Your task to perform on an android device: Add usb-a to the cart on costco Image 0: 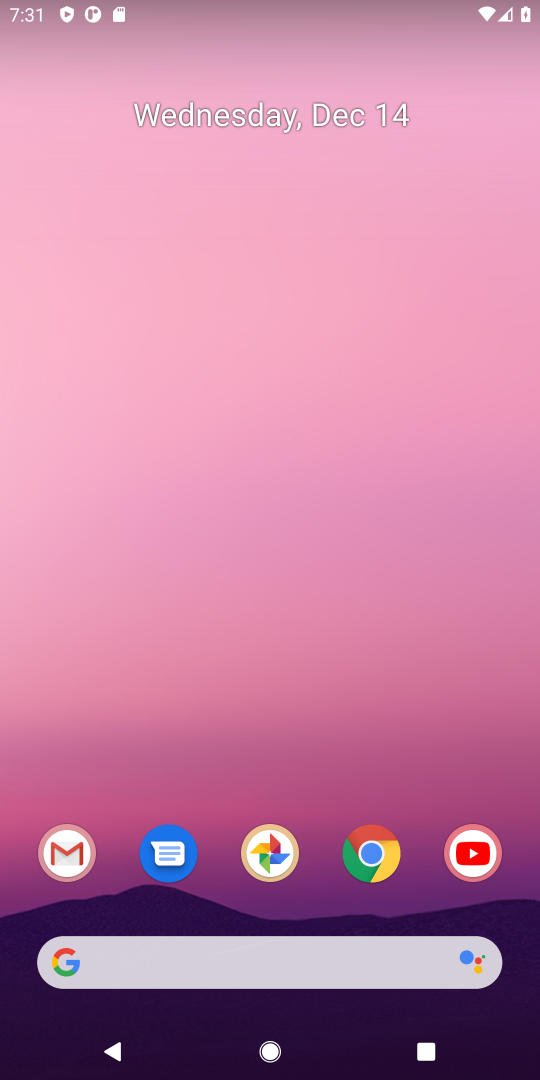
Step 0: click (371, 856)
Your task to perform on an android device: Add usb-a to the cart on costco Image 1: 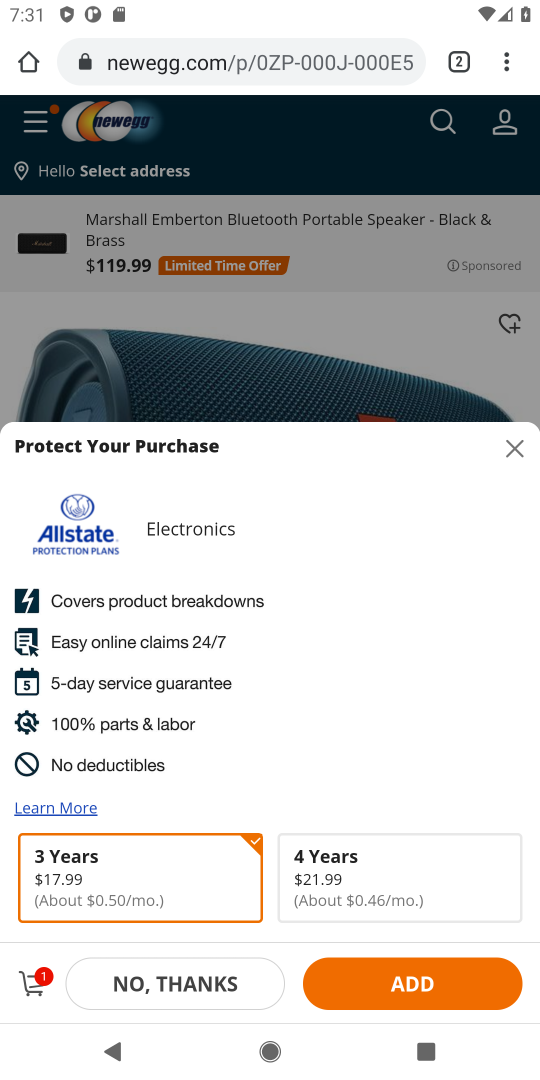
Step 1: click (456, 57)
Your task to perform on an android device: Add usb-a to the cart on costco Image 2: 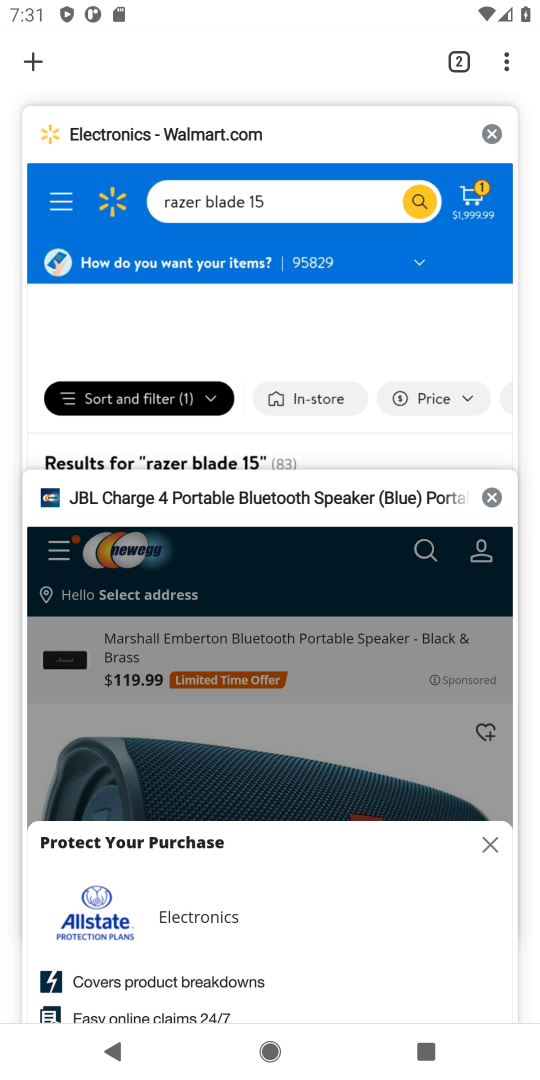
Step 2: click (32, 51)
Your task to perform on an android device: Add usb-a to the cart on costco Image 3: 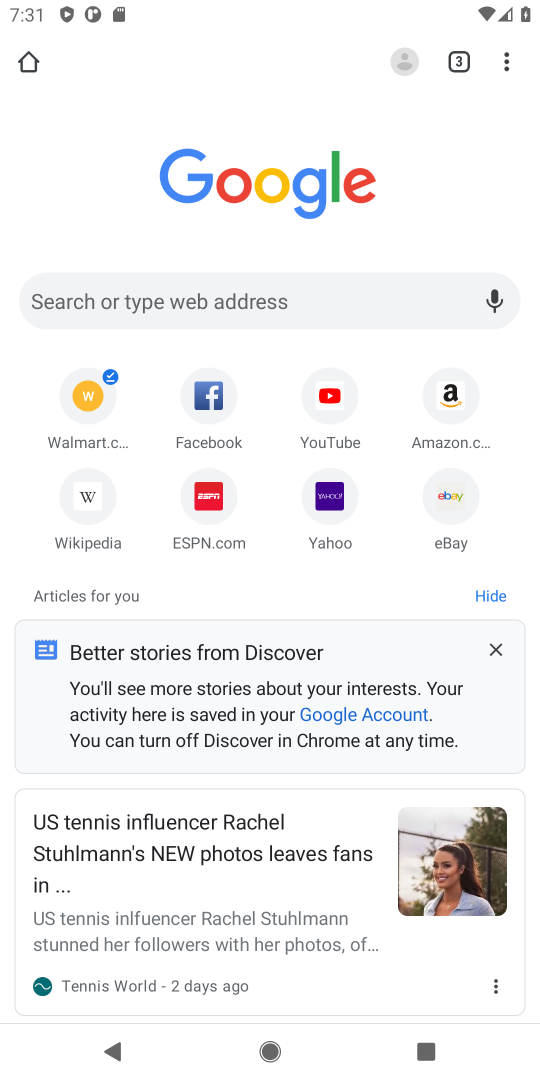
Step 3: click (172, 306)
Your task to perform on an android device: Add usb-a to the cart on costco Image 4: 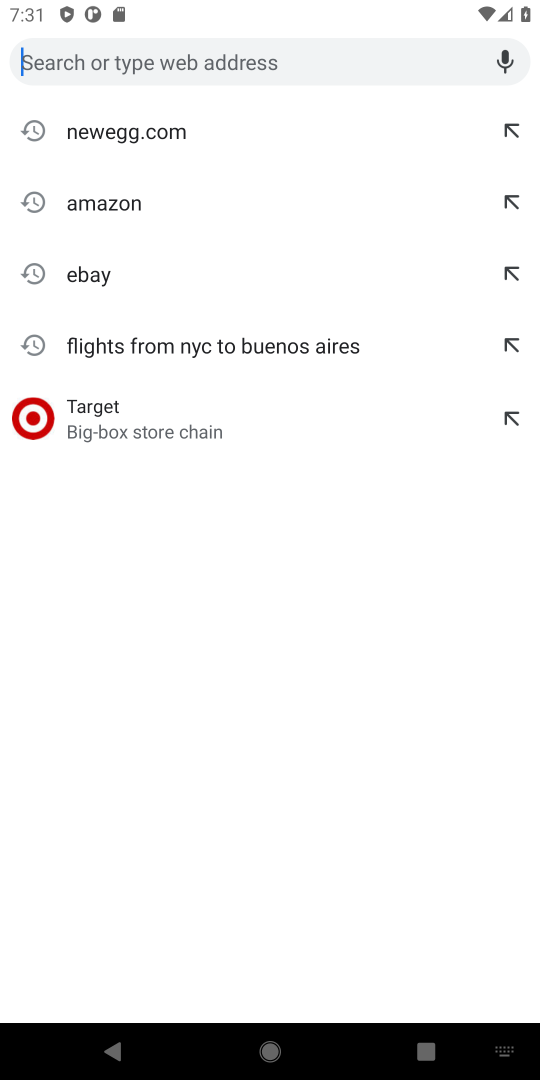
Step 4: type "costco"
Your task to perform on an android device: Add usb-a to the cart on costco Image 5: 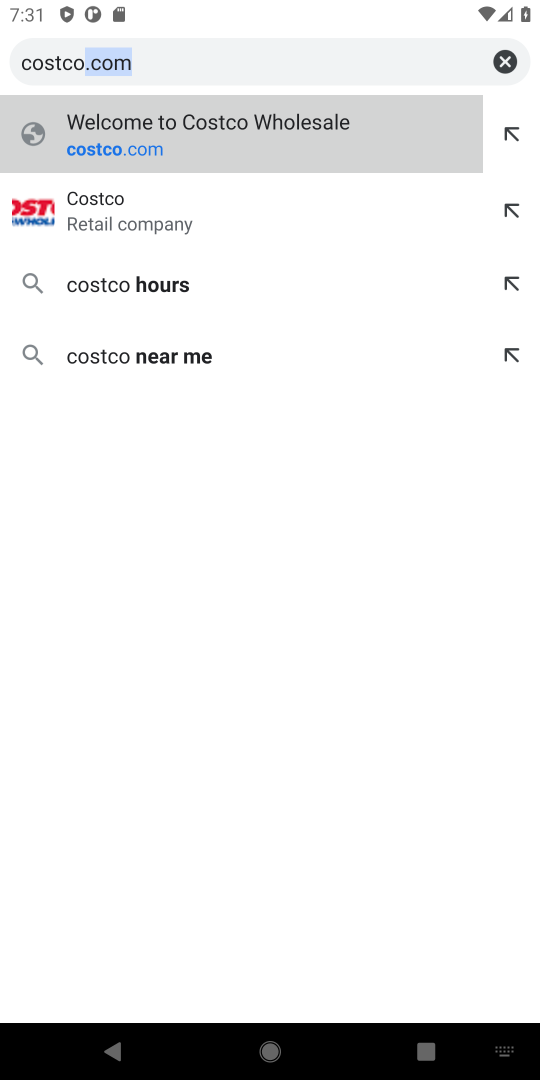
Step 5: click (365, 130)
Your task to perform on an android device: Add usb-a to the cart on costco Image 6: 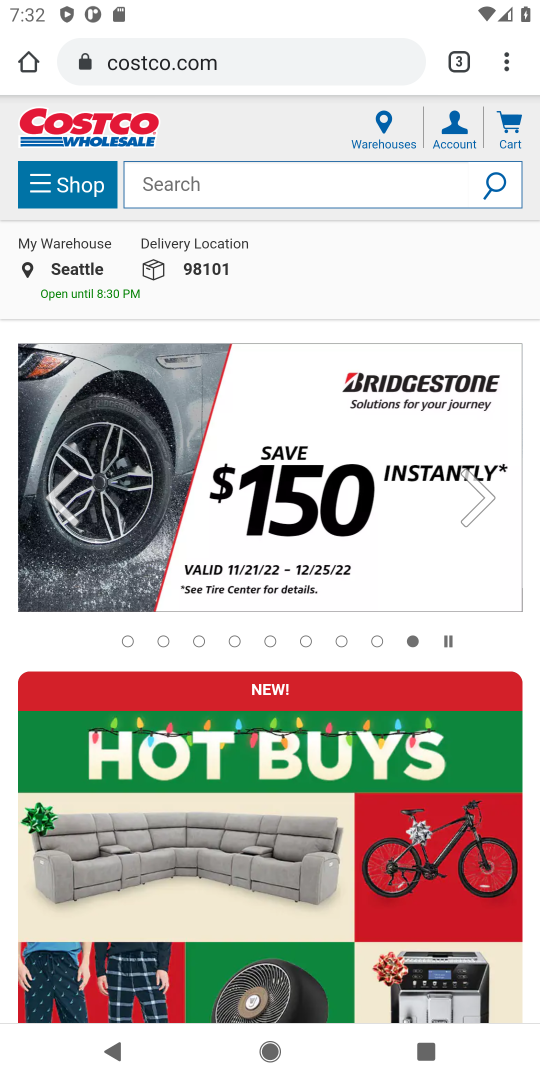
Step 6: click (217, 186)
Your task to perform on an android device: Add usb-a to the cart on costco Image 7: 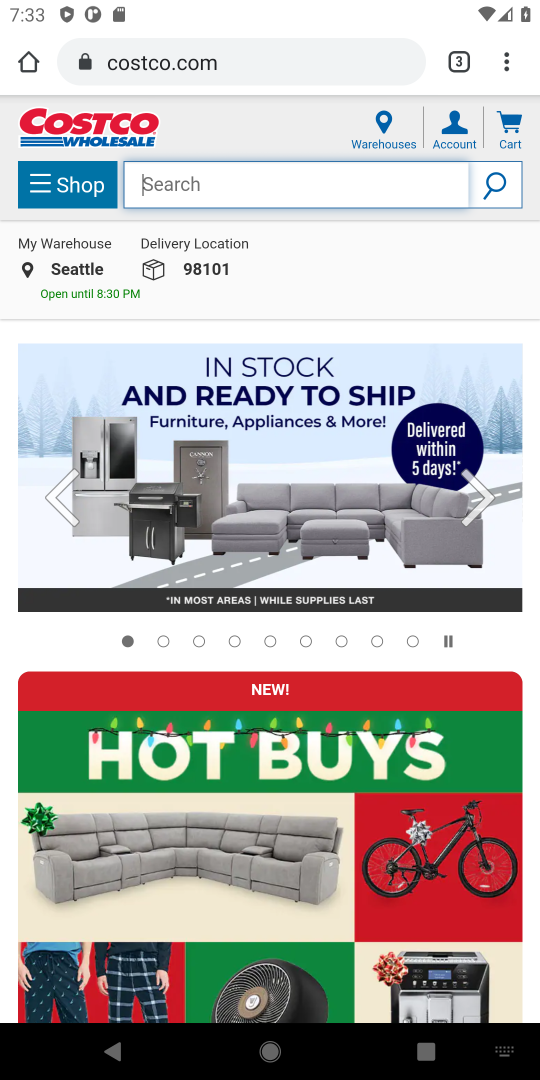
Step 7: type "usb-a"
Your task to perform on an android device: Add usb-a to the cart on costco Image 8: 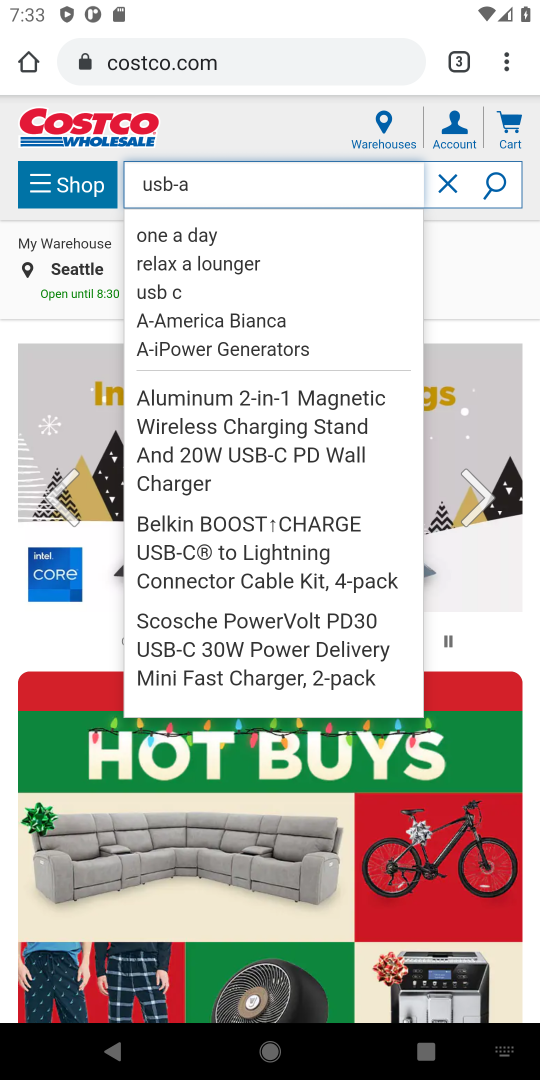
Step 8: click (491, 188)
Your task to perform on an android device: Add usb-a to the cart on costco Image 9: 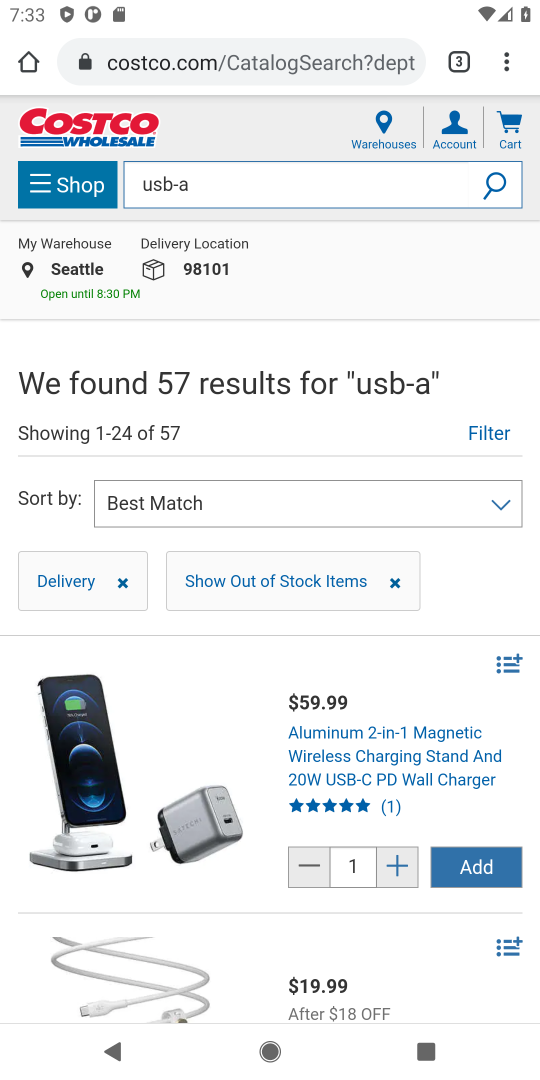
Step 9: click (274, 831)
Your task to perform on an android device: Add usb-a to the cart on costco Image 10: 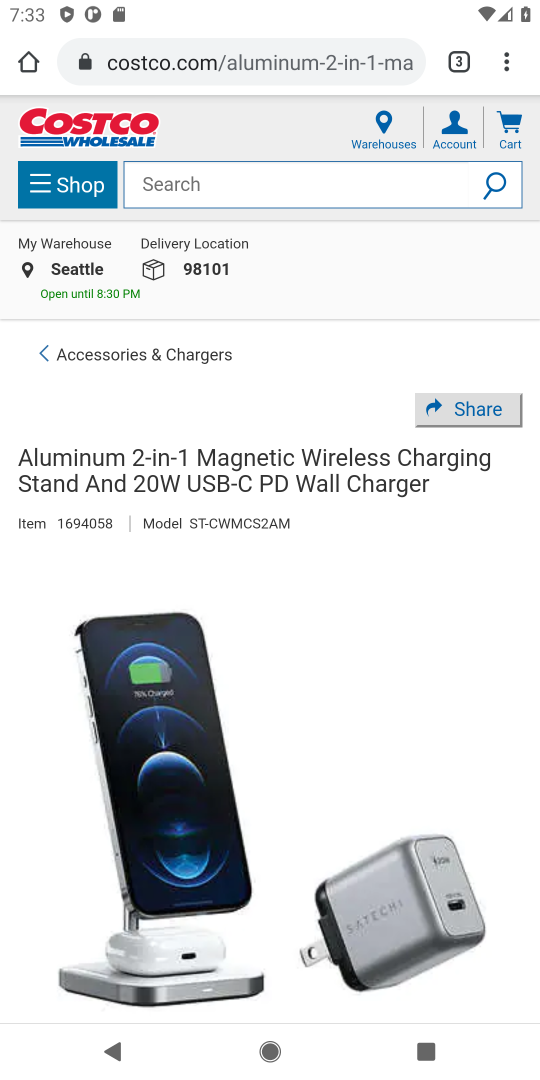
Step 10: task complete